Your task to perform on an android device: Go to accessibility settings Image 0: 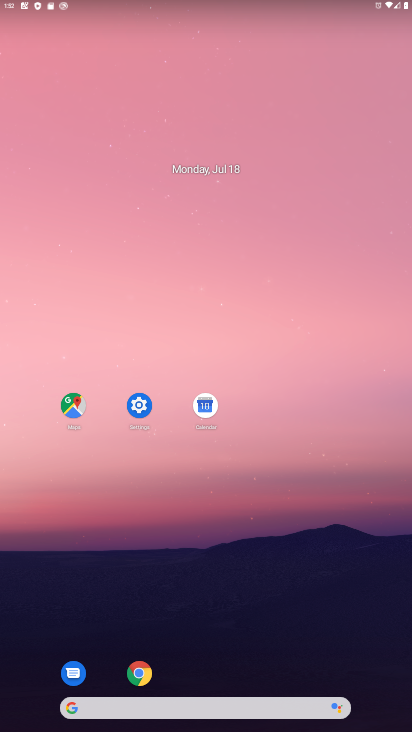
Step 0: click (136, 408)
Your task to perform on an android device: Go to accessibility settings Image 1: 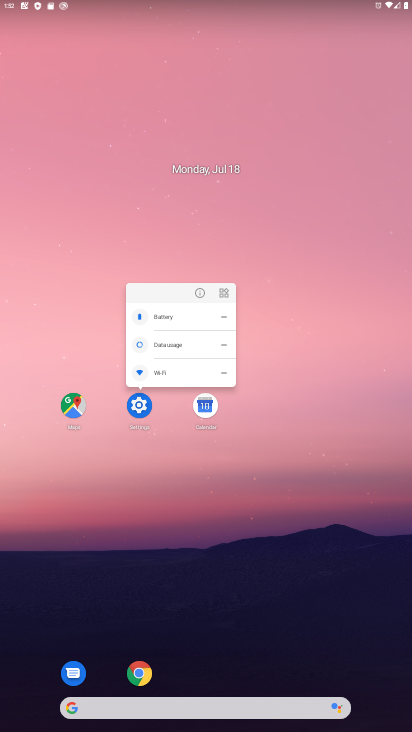
Step 1: click (136, 408)
Your task to perform on an android device: Go to accessibility settings Image 2: 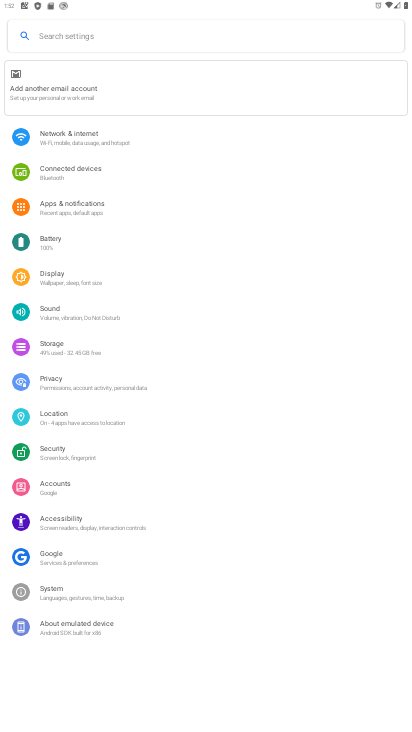
Step 2: click (62, 521)
Your task to perform on an android device: Go to accessibility settings Image 3: 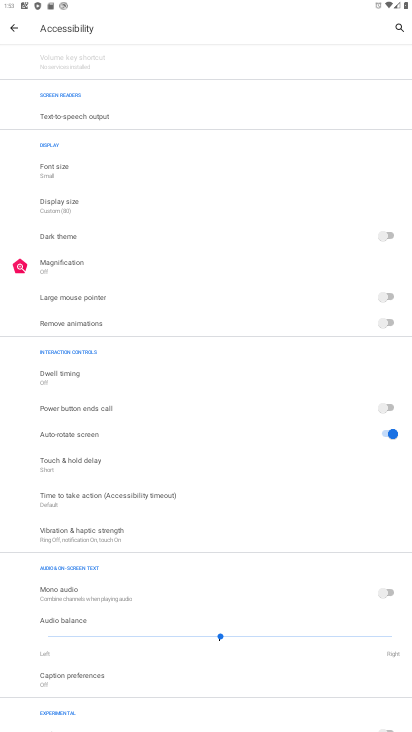
Step 3: task complete